Your task to perform on an android device: open app "Adobe Express: Graphic Design" Image 0: 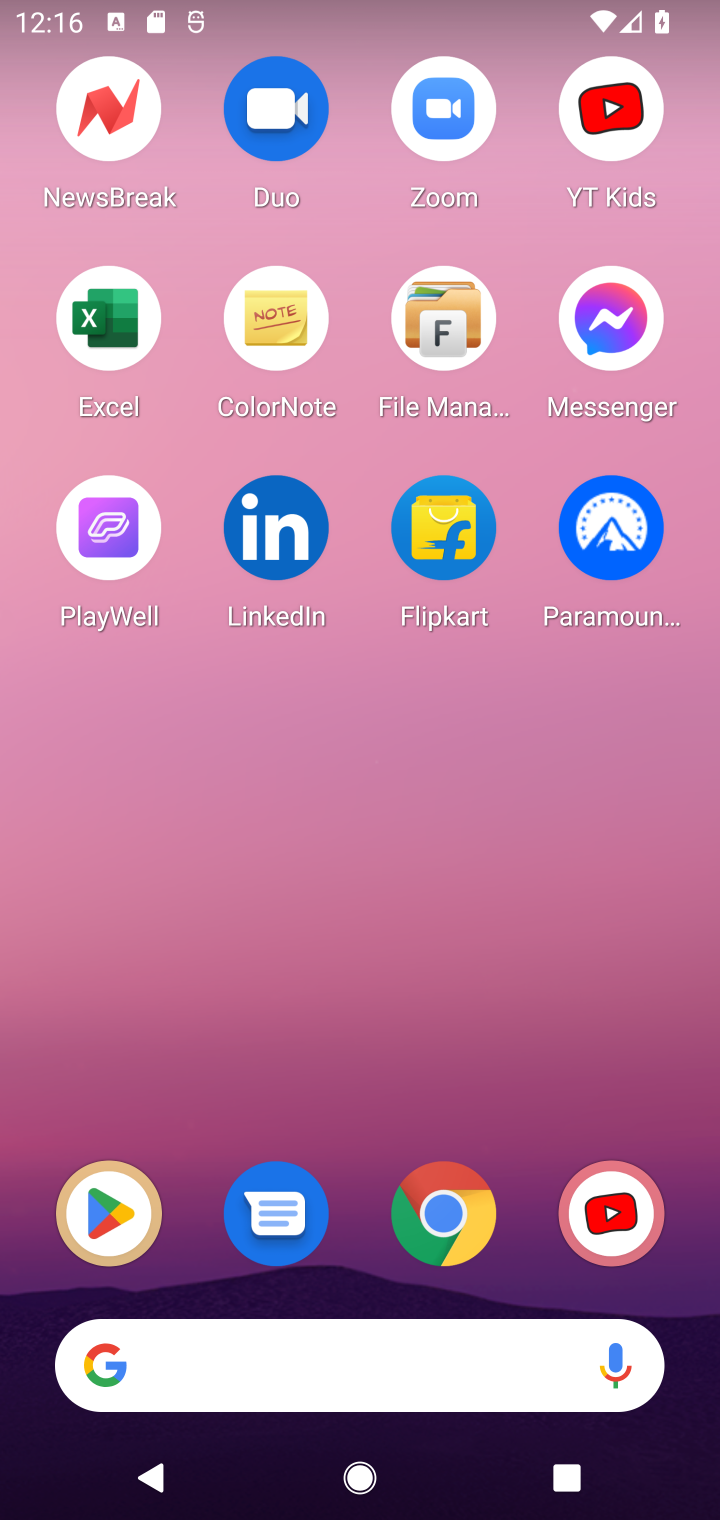
Step 0: drag from (397, 1291) to (397, 283)
Your task to perform on an android device: open app "Adobe Express: Graphic Design" Image 1: 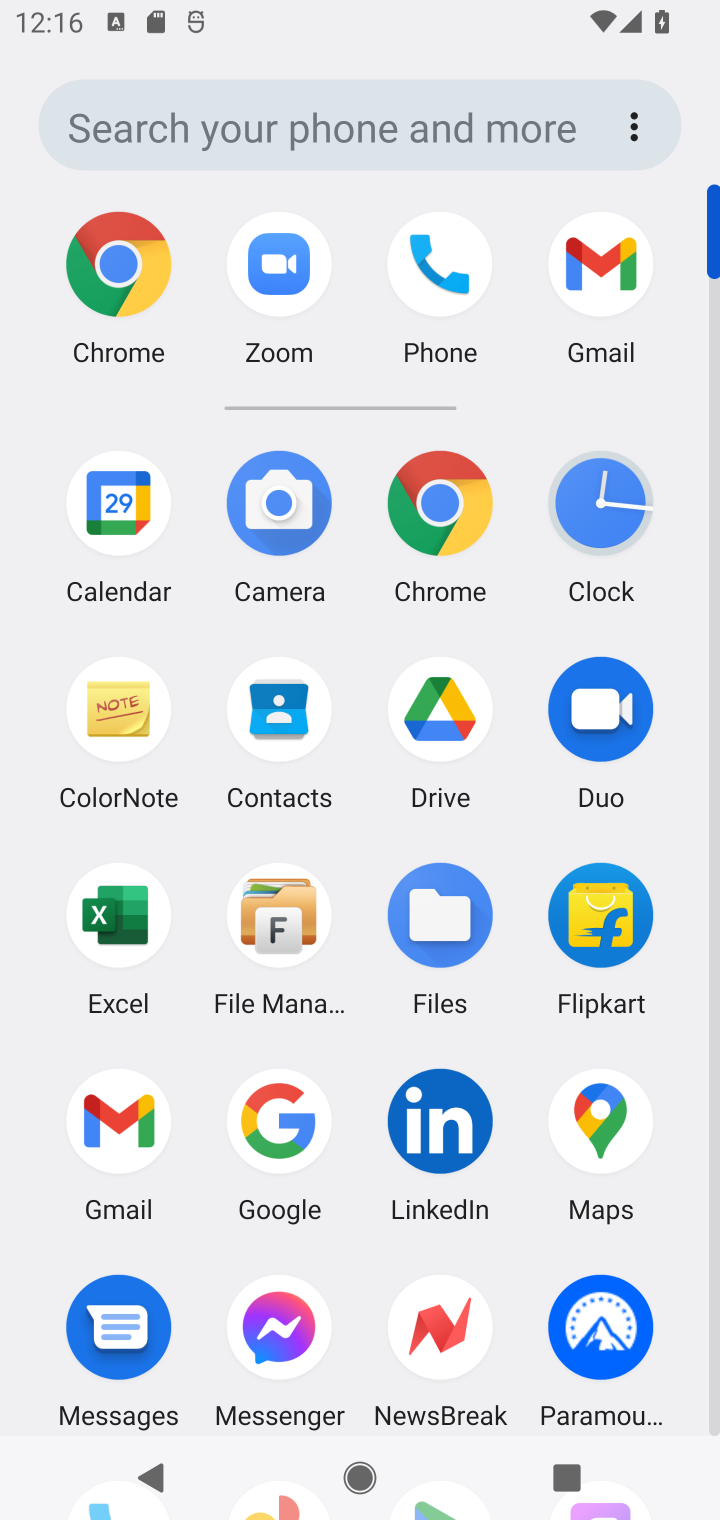
Step 1: drag from (353, 1334) to (362, 695)
Your task to perform on an android device: open app "Adobe Express: Graphic Design" Image 2: 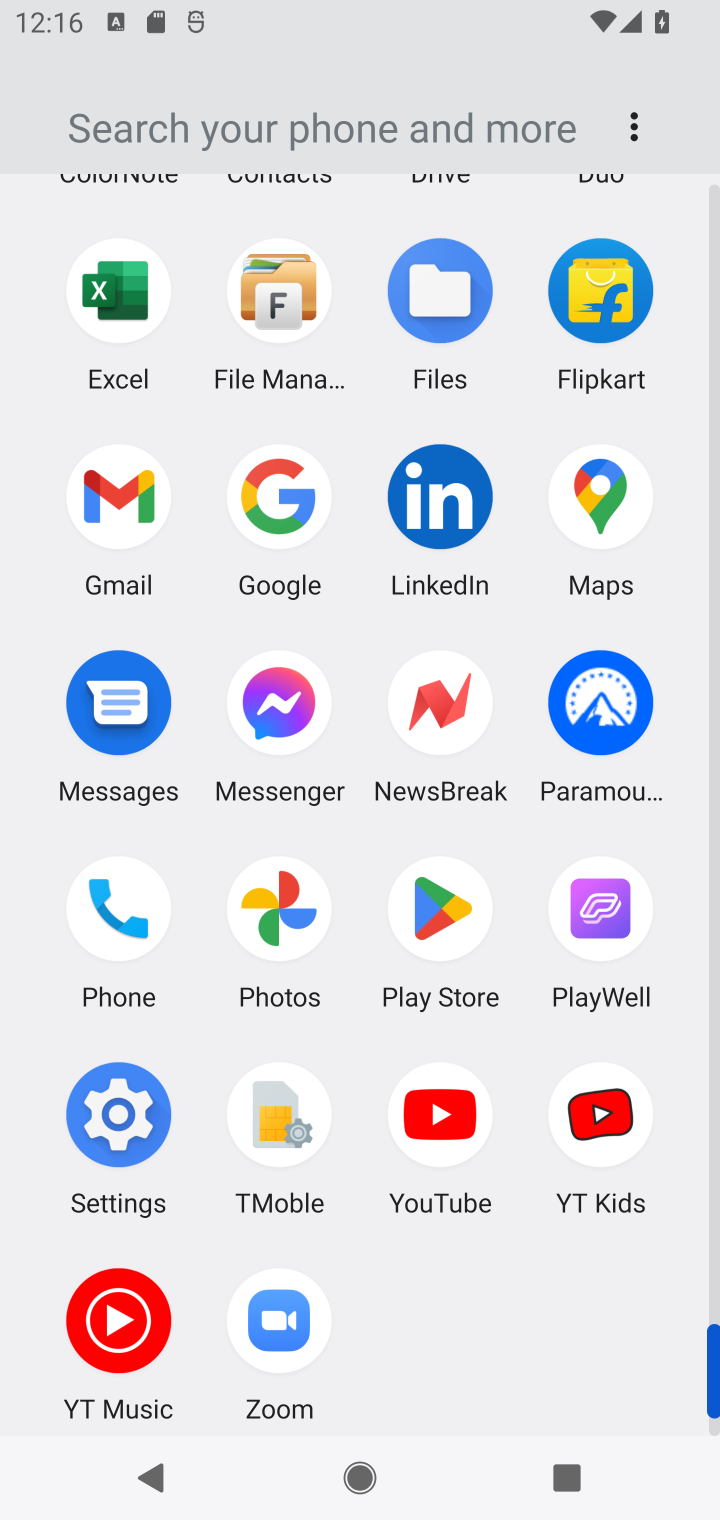
Step 2: click (421, 899)
Your task to perform on an android device: open app "Adobe Express: Graphic Design" Image 3: 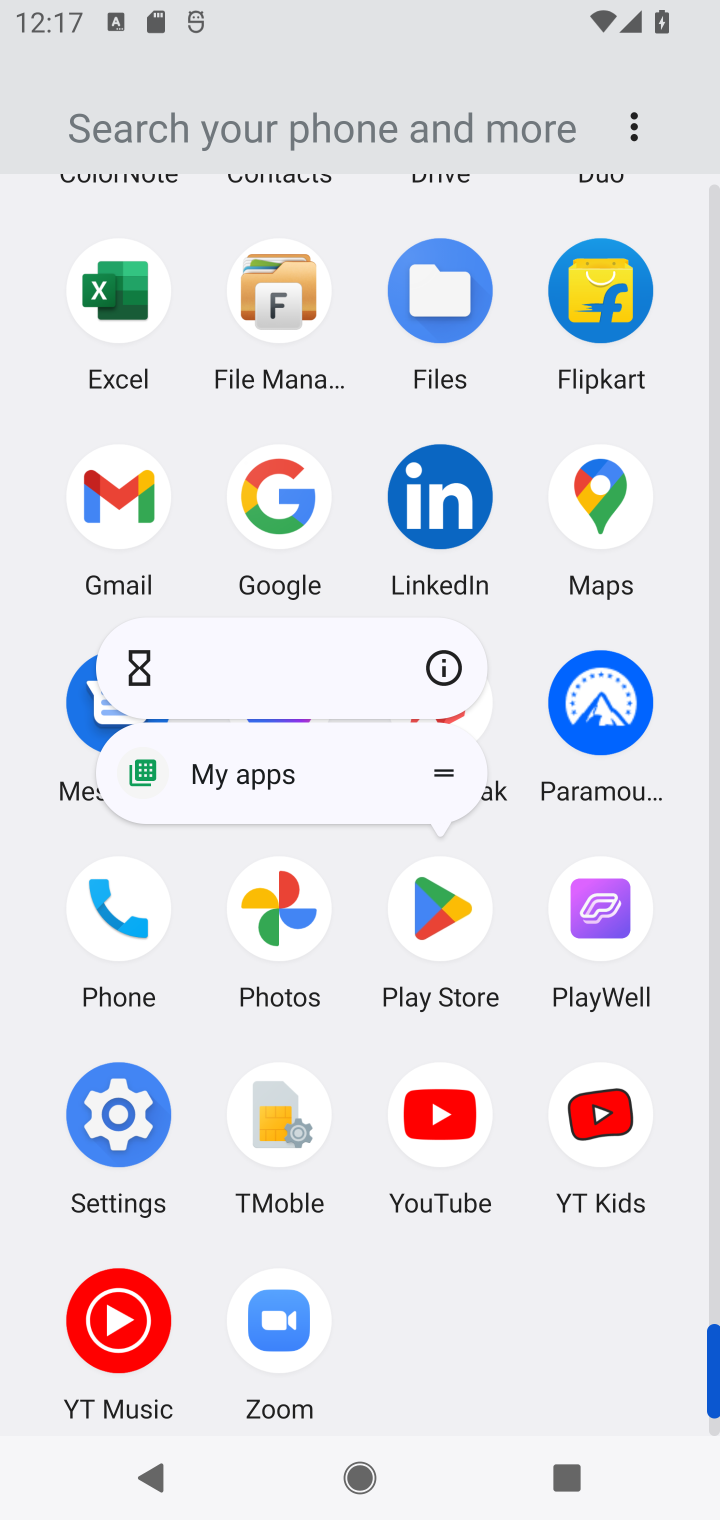
Step 3: click (448, 927)
Your task to perform on an android device: open app "Adobe Express: Graphic Design" Image 4: 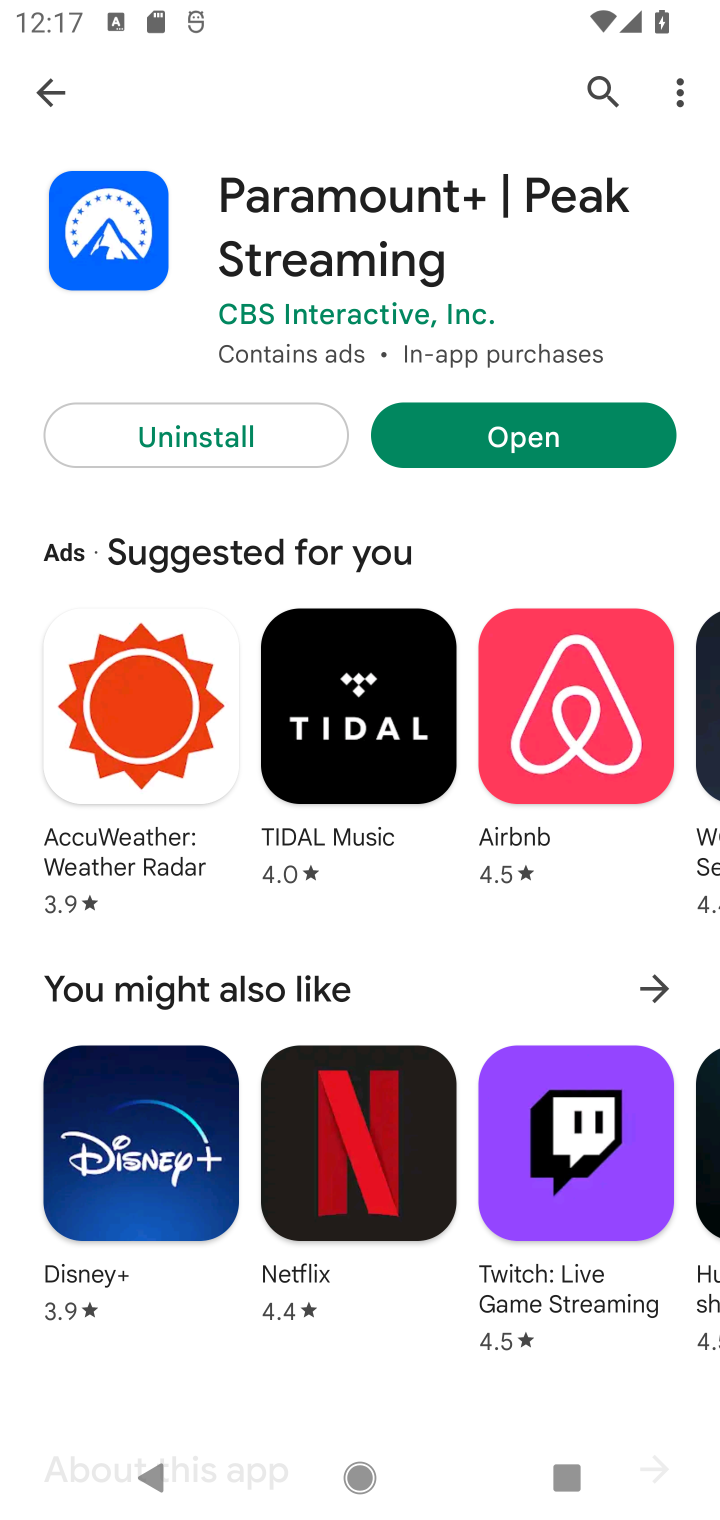
Step 4: click (596, 72)
Your task to perform on an android device: open app "Adobe Express: Graphic Design" Image 5: 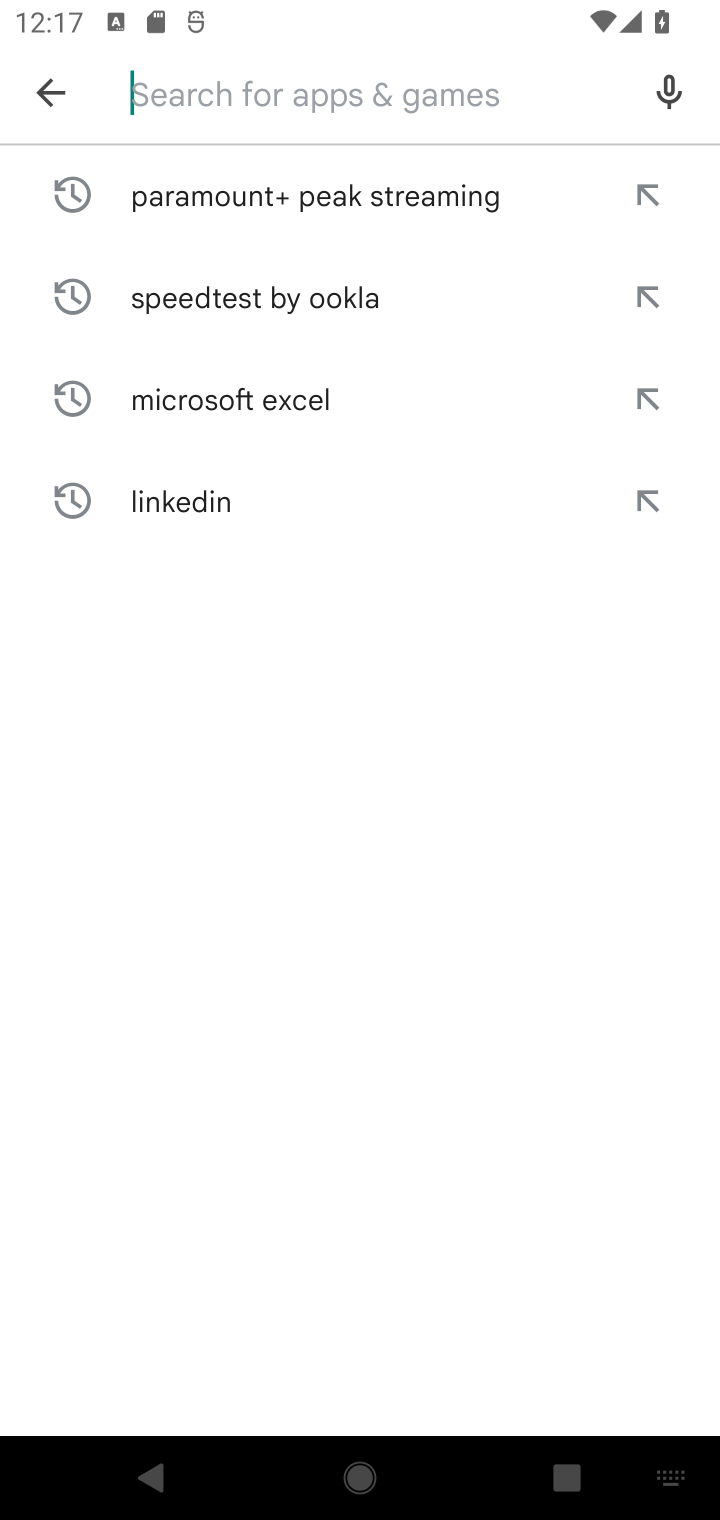
Step 5: type "Adobe Express: Graphic Design"
Your task to perform on an android device: open app "Adobe Express: Graphic Design" Image 6: 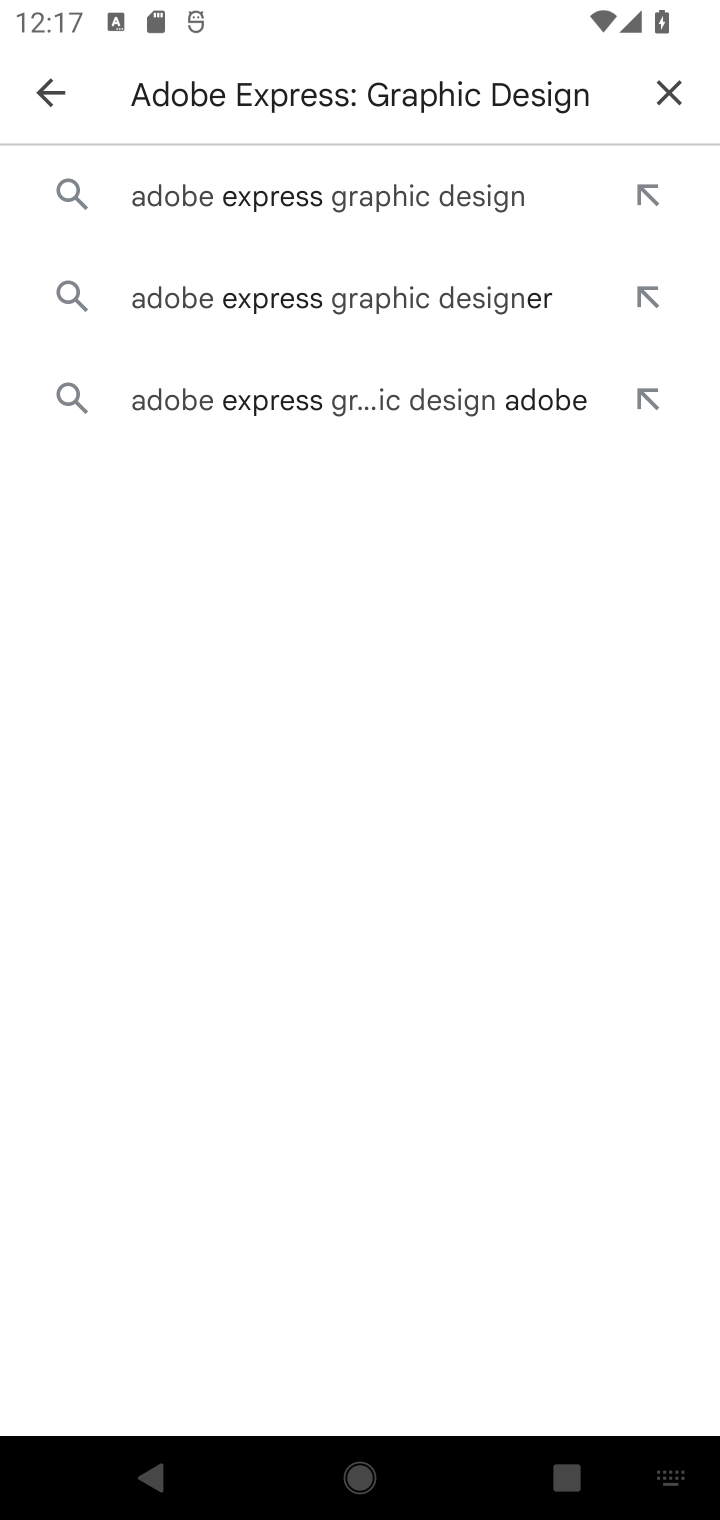
Step 6: click (420, 193)
Your task to perform on an android device: open app "Adobe Express: Graphic Design" Image 7: 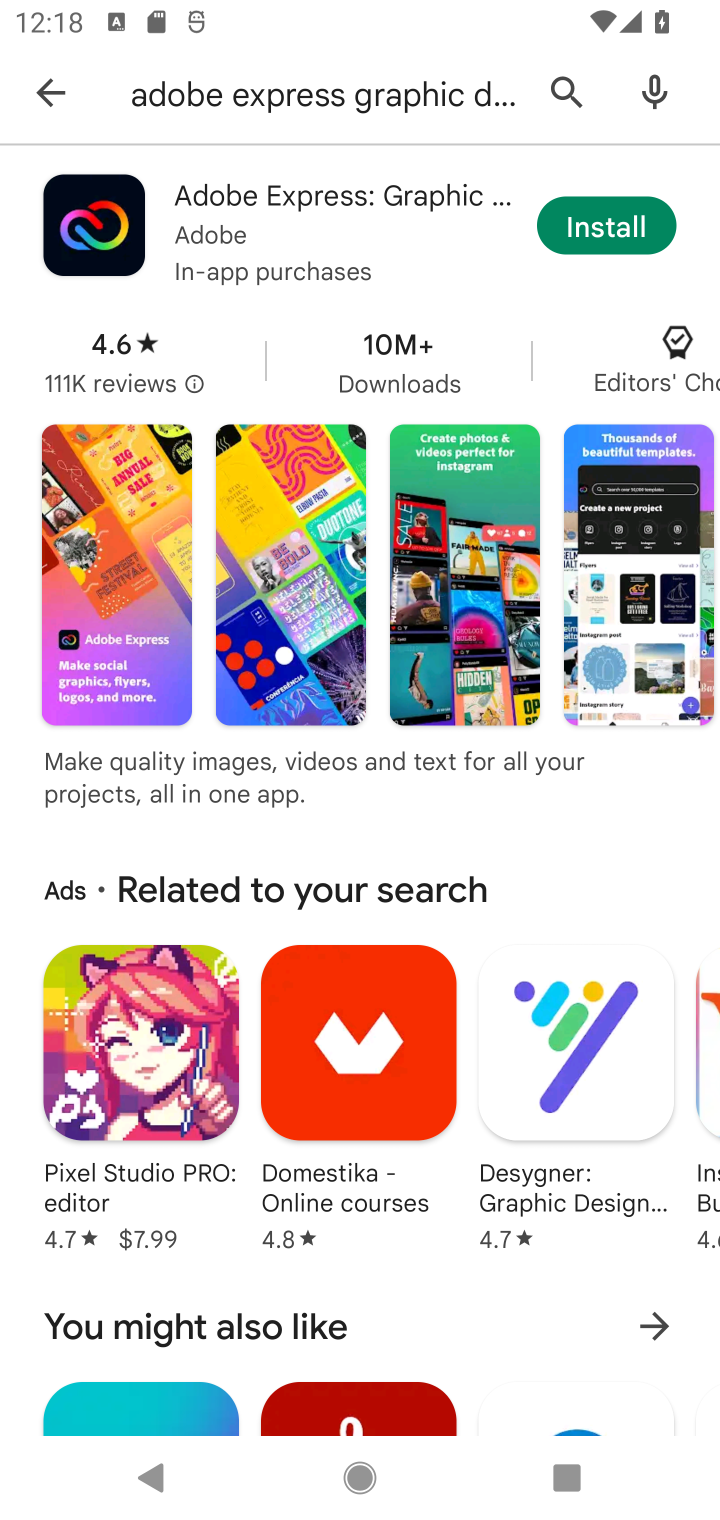
Step 7: task complete